Your task to perform on an android device: choose inbox layout in the gmail app Image 0: 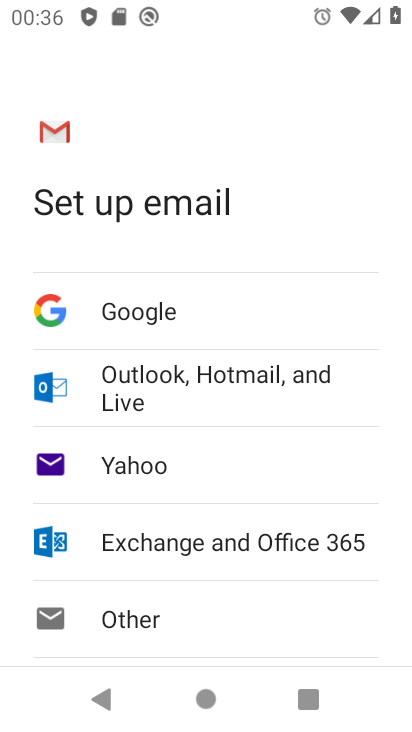
Step 0: press home button
Your task to perform on an android device: choose inbox layout in the gmail app Image 1: 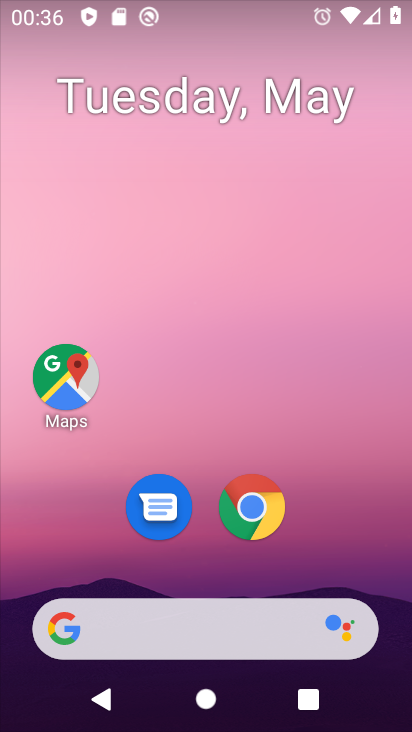
Step 1: drag from (142, 598) to (240, 117)
Your task to perform on an android device: choose inbox layout in the gmail app Image 2: 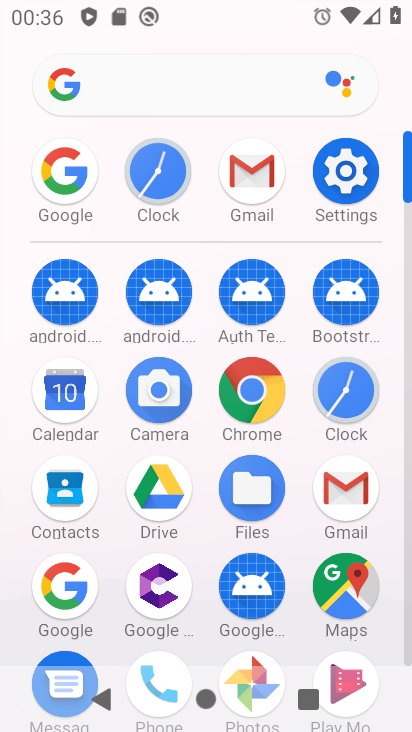
Step 2: click (338, 494)
Your task to perform on an android device: choose inbox layout in the gmail app Image 3: 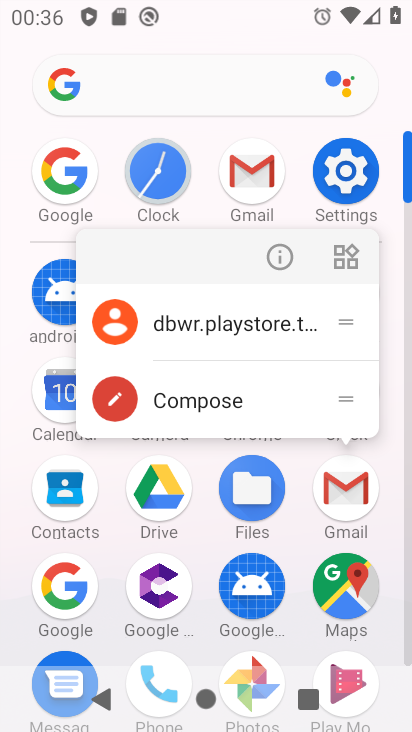
Step 3: click (338, 494)
Your task to perform on an android device: choose inbox layout in the gmail app Image 4: 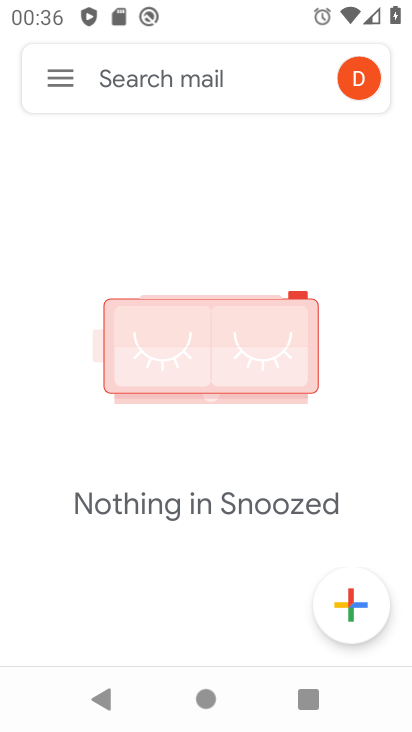
Step 4: click (50, 83)
Your task to perform on an android device: choose inbox layout in the gmail app Image 5: 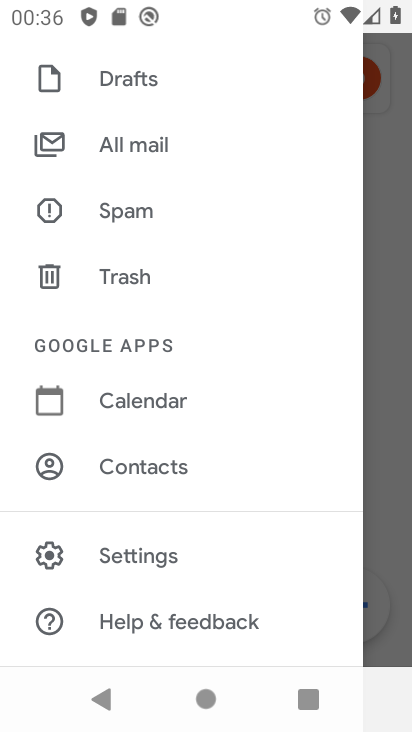
Step 5: click (117, 554)
Your task to perform on an android device: choose inbox layout in the gmail app Image 6: 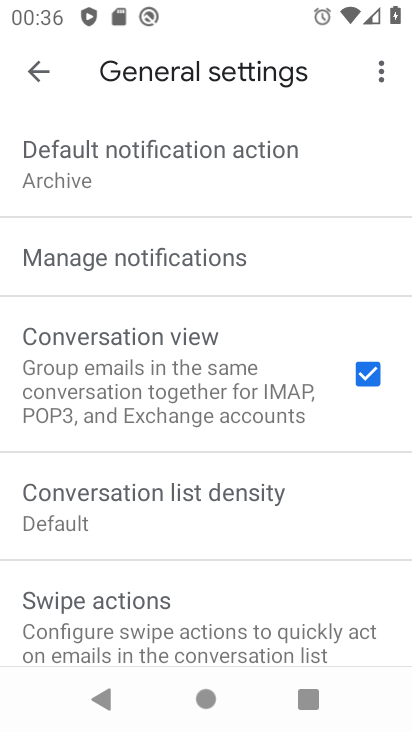
Step 6: click (40, 53)
Your task to perform on an android device: choose inbox layout in the gmail app Image 7: 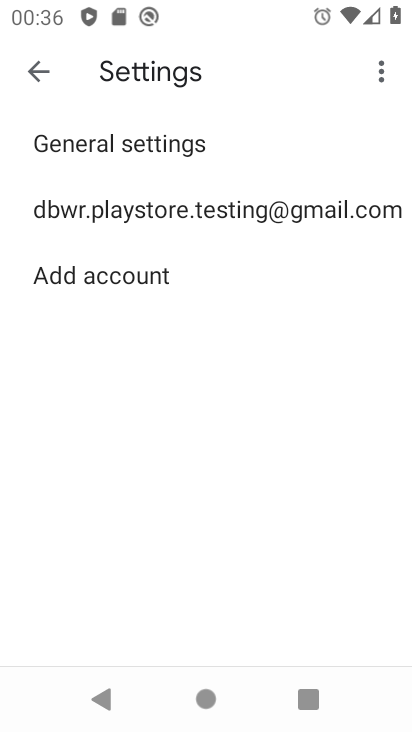
Step 7: click (119, 211)
Your task to perform on an android device: choose inbox layout in the gmail app Image 8: 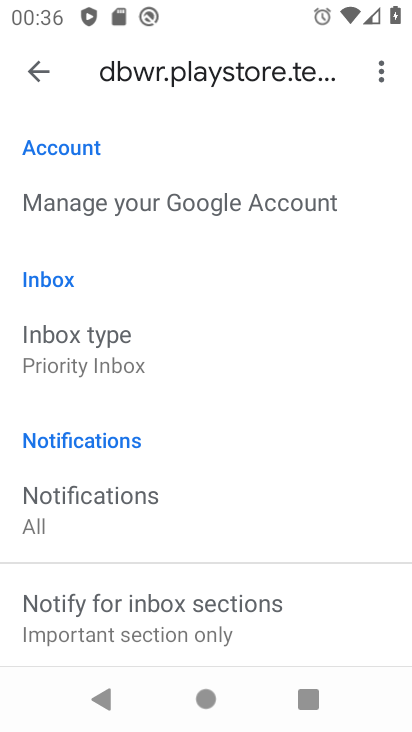
Step 8: click (96, 347)
Your task to perform on an android device: choose inbox layout in the gmail app Image 9: 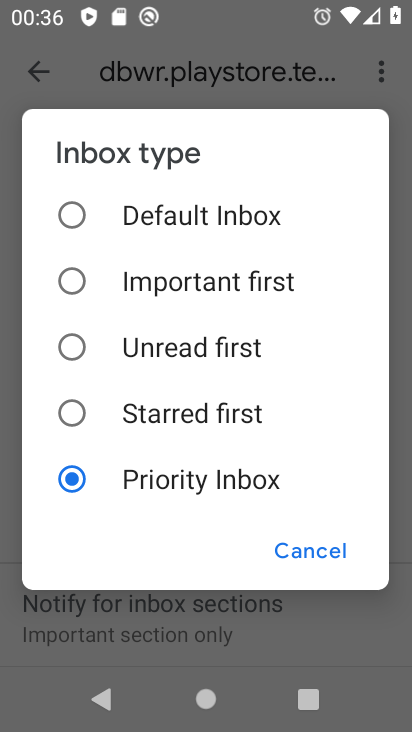
Step 9: click (120, 288)
Your task to perform on an android device: choose inbox layout in the gmail app Image 10: 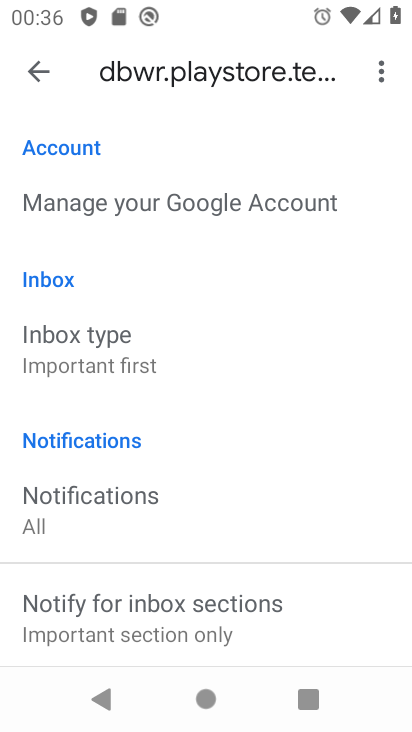
Step 10: task complete